Your task to perform on an android device: Open settings Image 0: 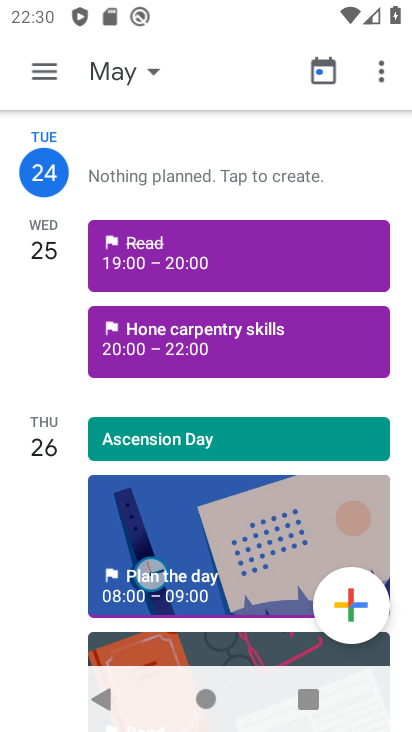
Step 0: press home button
Your task to perform on an android device: Open settings Image 1: 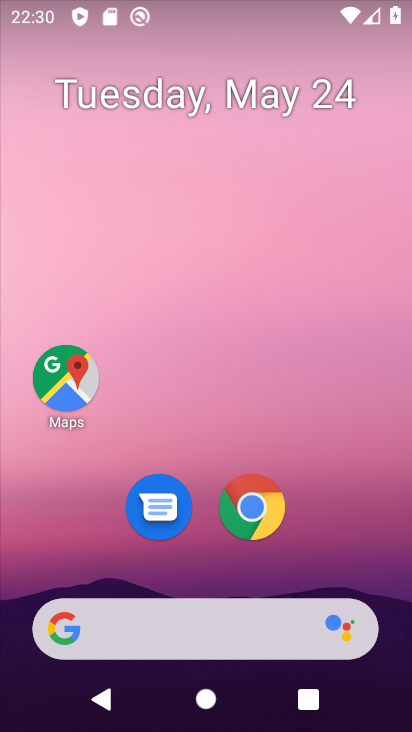
Step 1: drag from (223, 503) to (252, 11)
Your task to perform on an android device: Open settings Image 2: 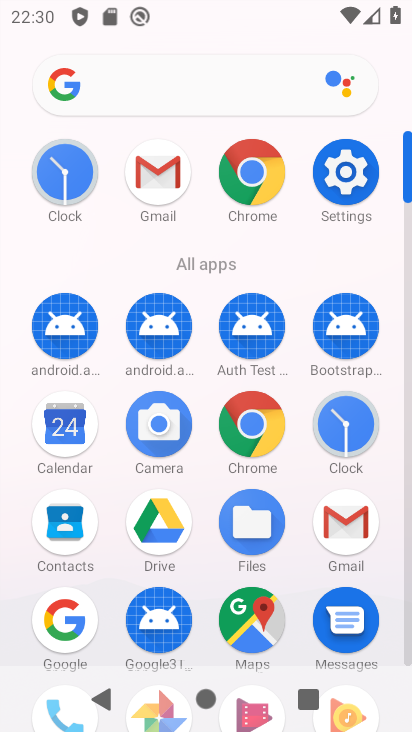
Step 2: click (352, 166)
Your task to perform on an android device: Open settings Image 3: 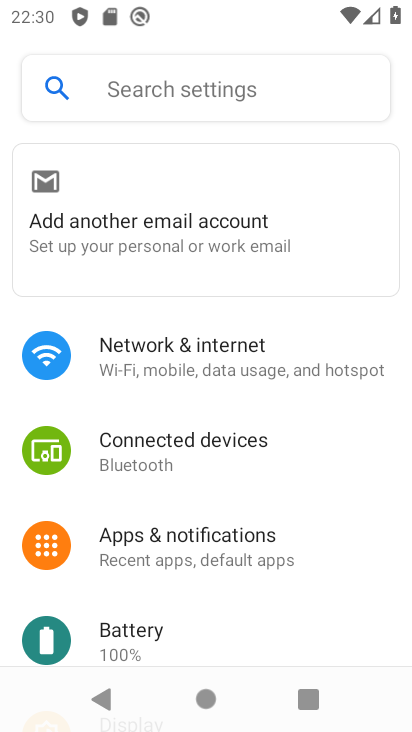
Step 3: task complete